Your task to perform on an android device: Open ESPN.com Image 0: 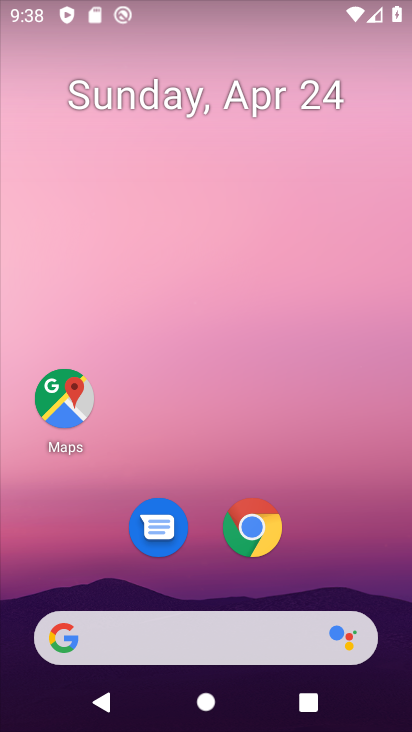
Step 0: drag from (196, 564) to (246, 168)
Your task to perform on an android device: Open ESPN.com Image 1: 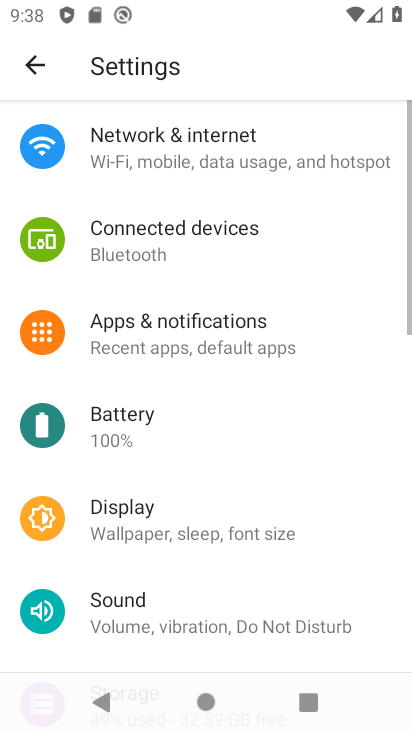
Step 1: press home button
Your task to perform on an android device: Open ESPN.com Image 2: 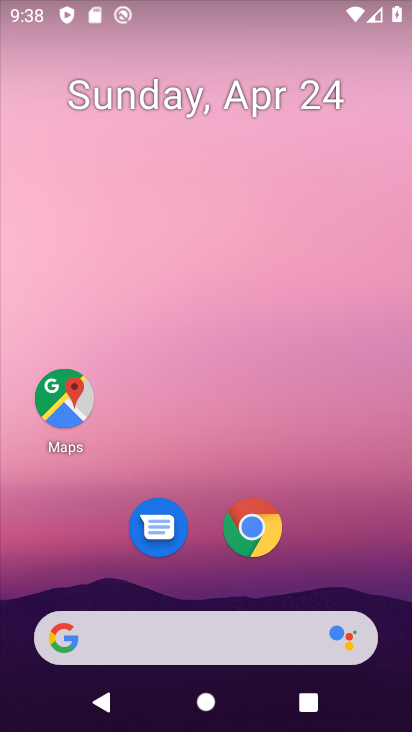
Step 2: click (261, 536)
Your task to perform on an android device: Open ESPN.com Image 3: 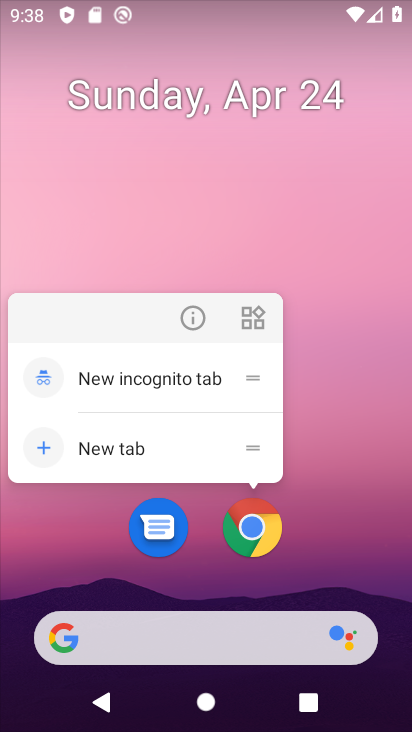
Step 3: click (260, 531)
Your task to perform on an android device: Open ESPN.com Image 4: 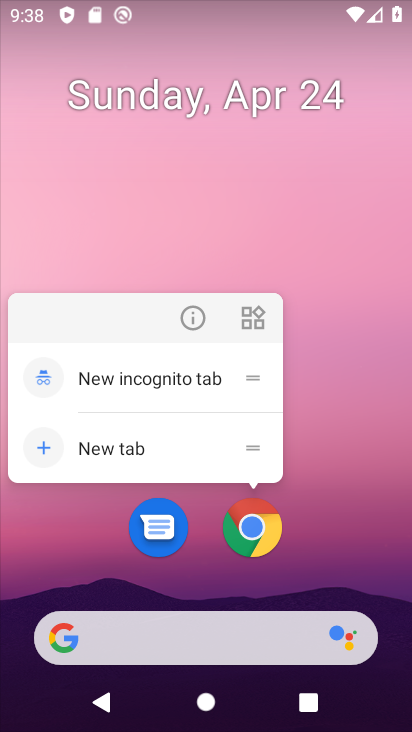
Step 4: click (260, 531)
Your task to perform on an android device: Open ESPN.com Image 5: 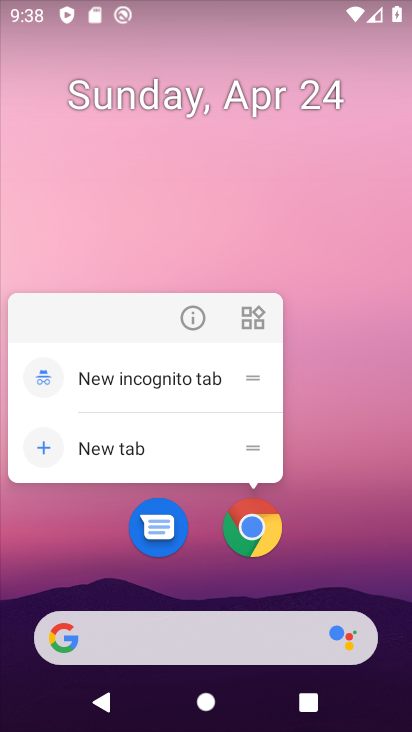
Step 5: click (253, 532)
Your task to perform on an android device: Open ESPN.com Image 6: 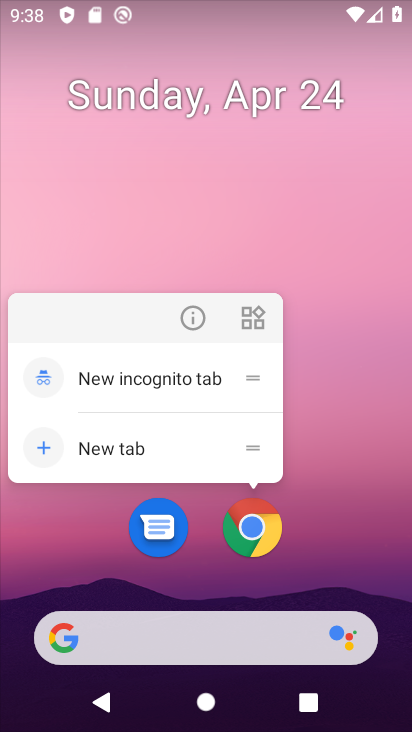
Step 6: click (253, 531)
Your task to perform on an android device: Open ESPN.com Image 7: 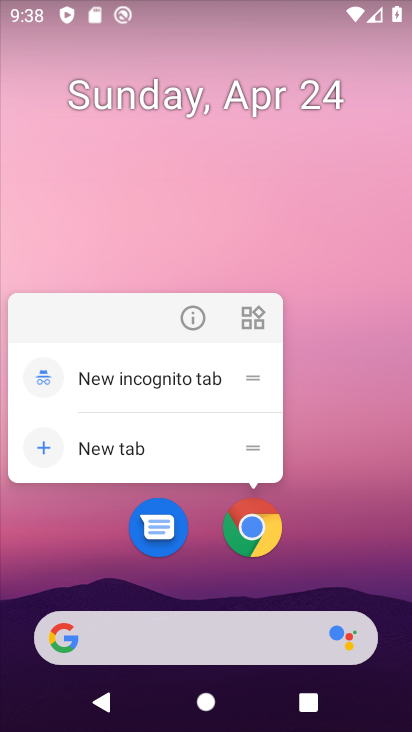
Step 7: click (248, 533)
Your task to perform on an android device: Open ESPN.com Image 8: 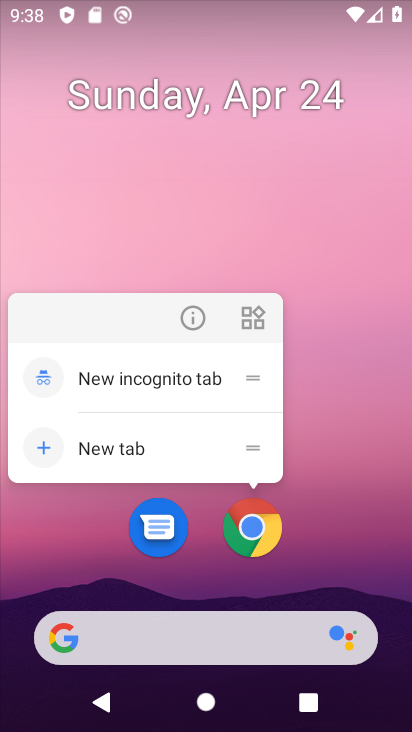
Step 8: click (271, 527)
Your task to perform on an android device: Open ESPN.com Image 9: 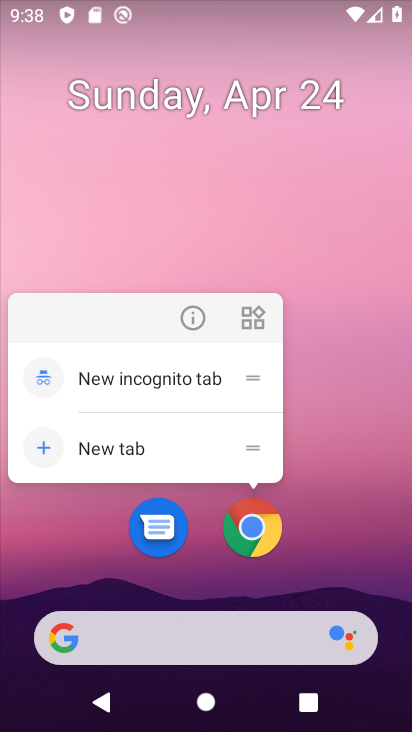
Step 9: click (245, 524)
Your task to perform on an android device: Open ESPN.com Image 10: 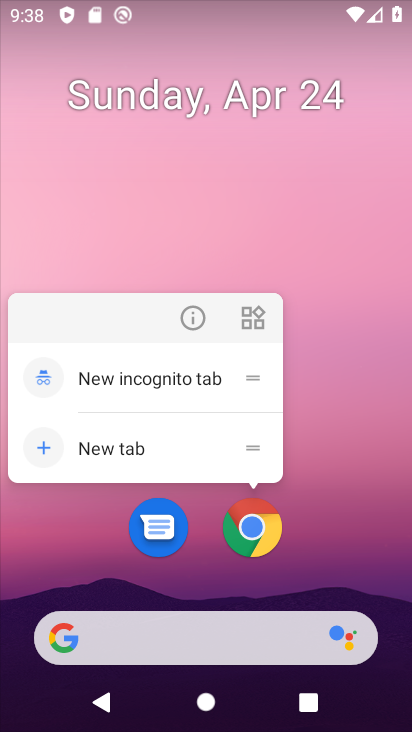
Step 10: click (266, 516)
Your task to perform on an android device: Open ESPN.com Image 11: 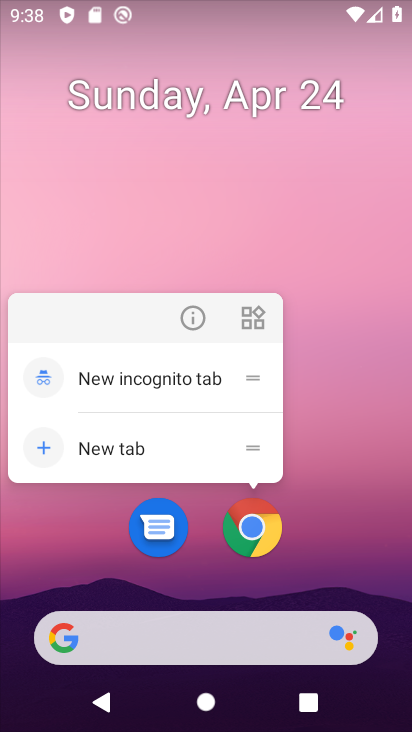
Step 11: click (247, 538)
Your task to perform on an android device: Open ESPN.com Image 12: 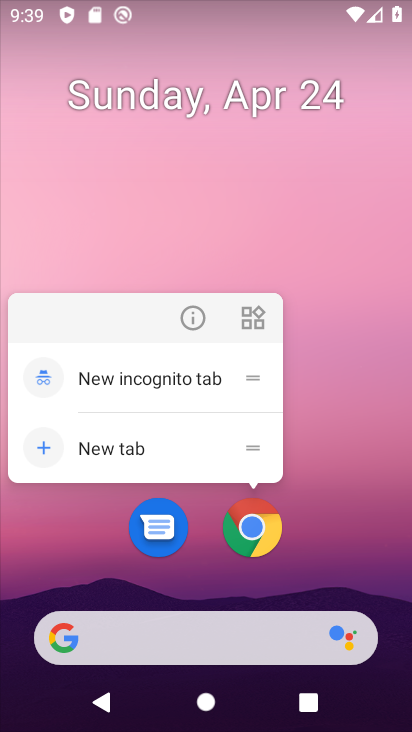
Step 12: click (241, 525)
Your task to perform on an android device: Open ESPN.com Image 13: 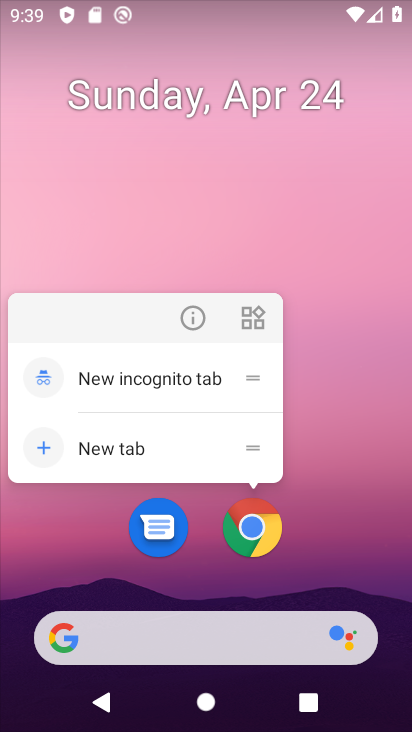
Step 13: click (261, 529)
Your task to perform on an android device: Open ESPN.com Image 14: 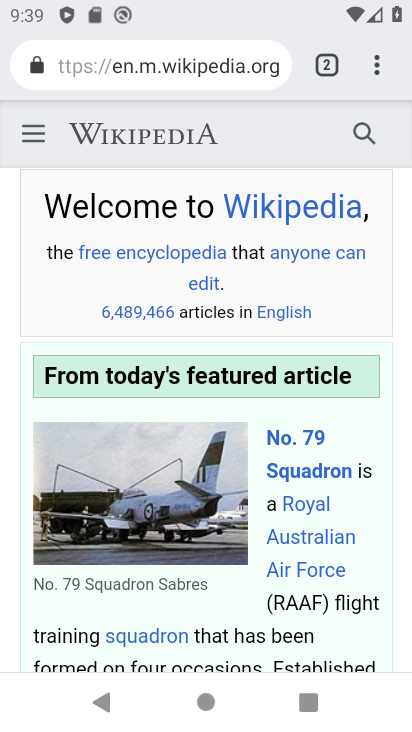
Step 14: click (325, 65)
Your task to perform on an android device: Open ESPN.com Image 15: 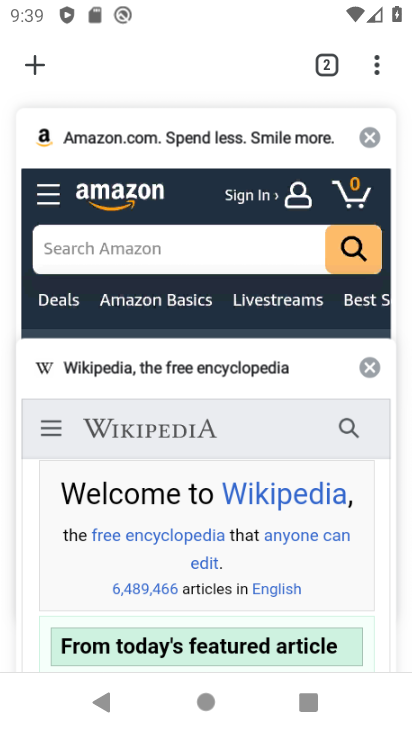
Step 15: click (42, 62)
Your task to perform on an android device: Open ESPN.com Image 16: 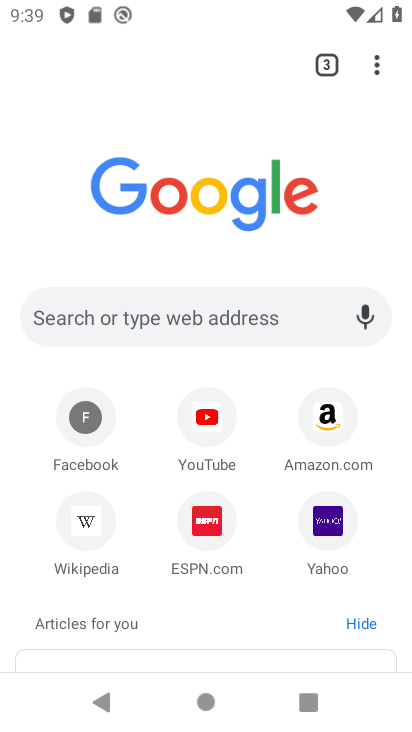
Step 16: click (205, 524)
Your task to perform on an android device: Open ESPN.com Image 17: 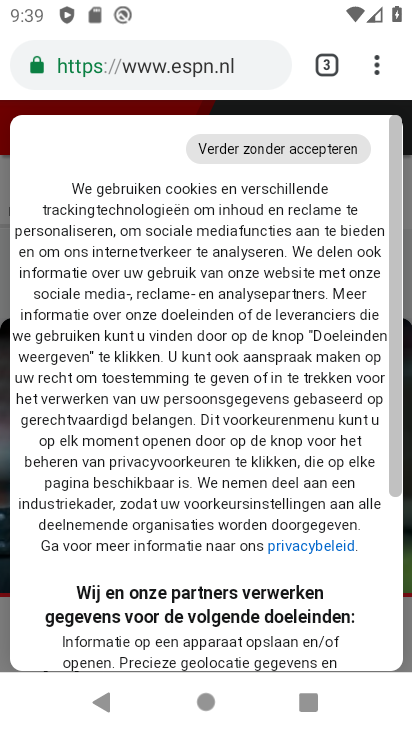
Step 17: task complete